Your task to perform on an android device: Go to display settings Image 0: 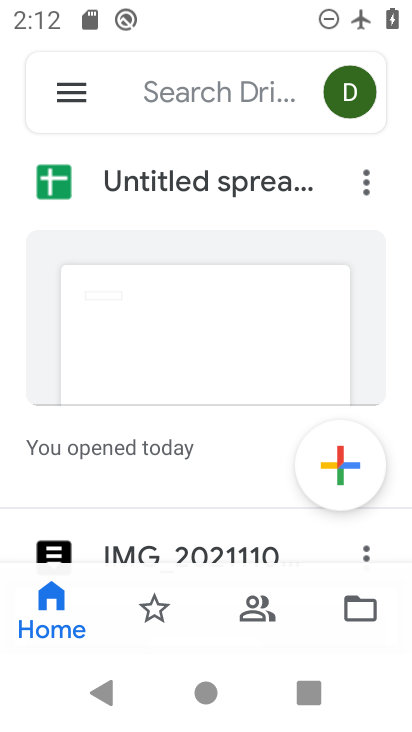
Step 0: press home button
Your task to perform on an android device: Go to display settings Image 1: 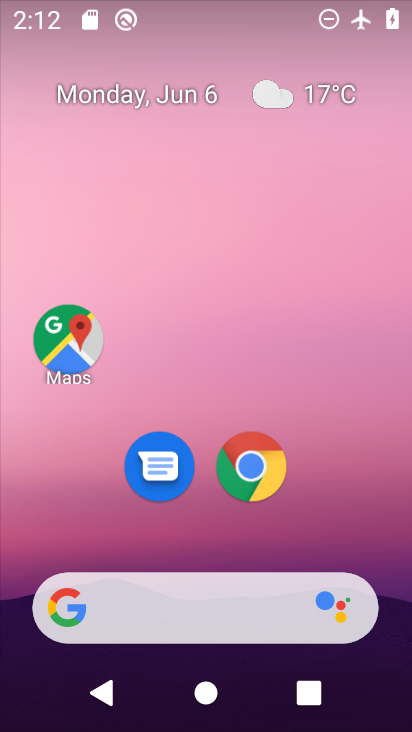
Step 1: drag from (318, 543) to (316, 221)
Your task to perform on an android device: Go to display settings Image 2: 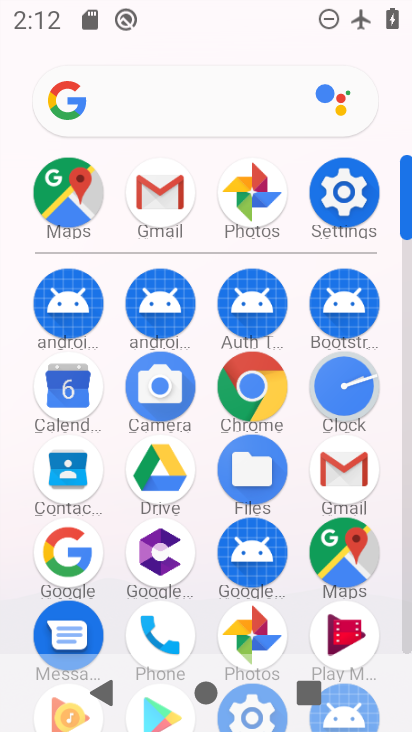
Step 2: click (347, 189)
Your task to perform on an android device: Go to display settings Image 3: 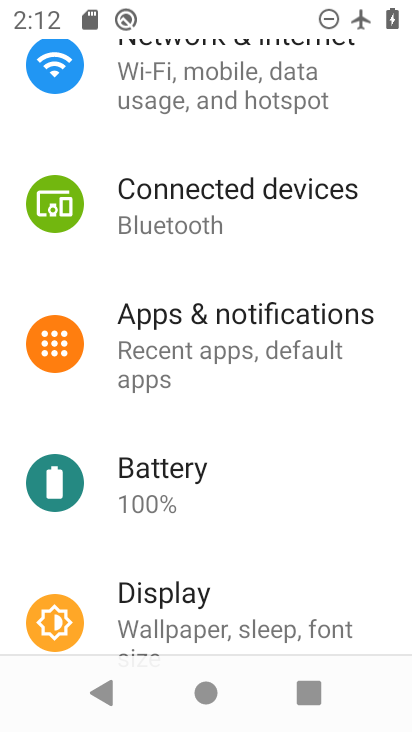
Step 3: click (233, 603)
Your task to perform on an android device: Go to display settings Image 4: 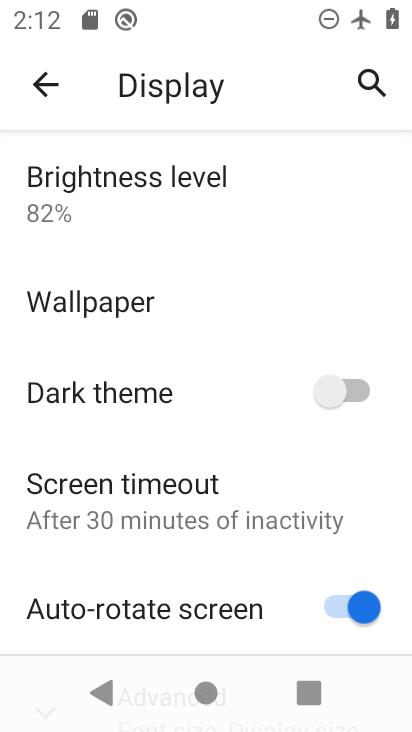
Step 4: task complete